Your task to perform on an android device: Go to wifi settings Image 0: 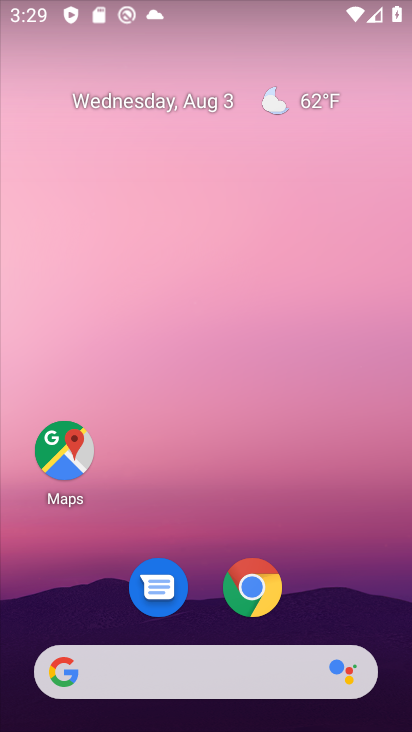
Step 0: drag from (145, 261) to (182, 177)
Your task to perform on an android device: Go to wifi settings Image 1: 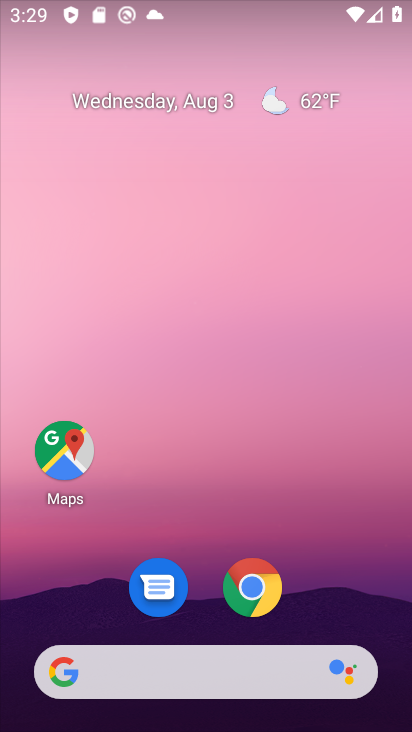
Step 1: drag from (98, 584) to (286, 11)
Your task to perform on an android device: Go to wifi settings Image 2: 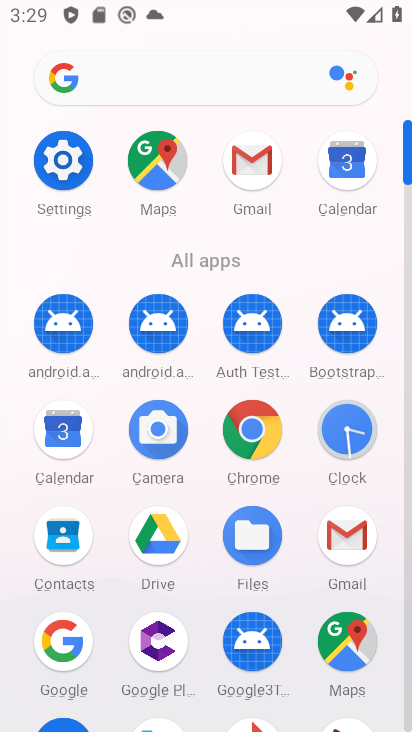
Step 2: drag from (161, 678) to (154, 359)
Your task to perform on an android device: Go to wifi settings Image 3: 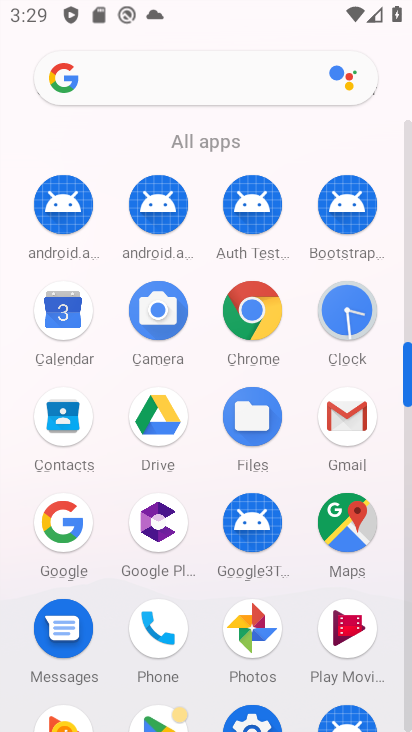
Step 3: click (250, 714)
Your task to perform on an android device: Go to wifi settings Image 4: 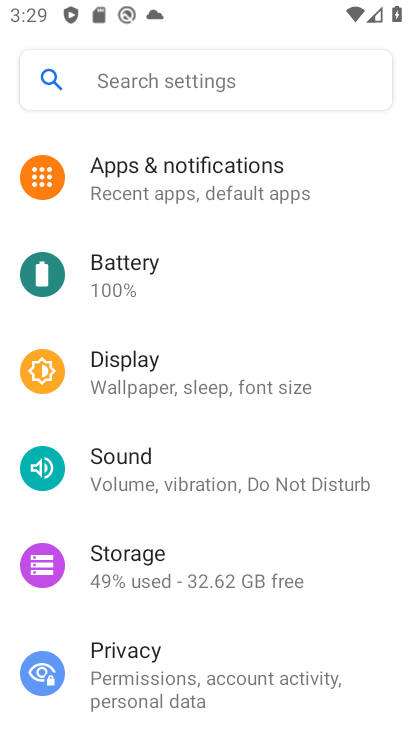
Step 4: task complete